Your task to perform on an android device: Go to eBay Image 0: 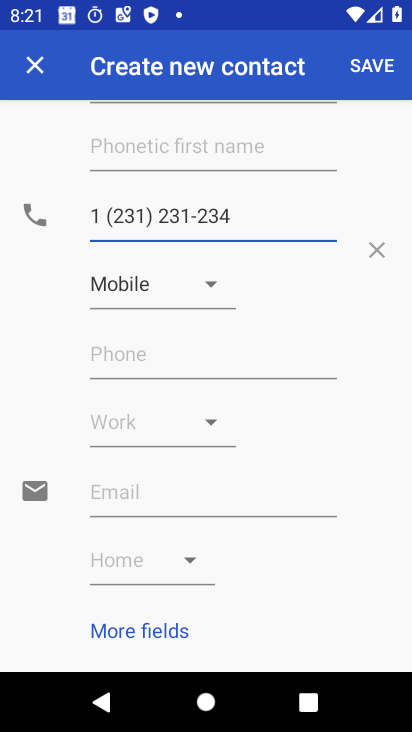
Step 0: press home button
Your task to perform on an android device: Go to eBay Image 1: 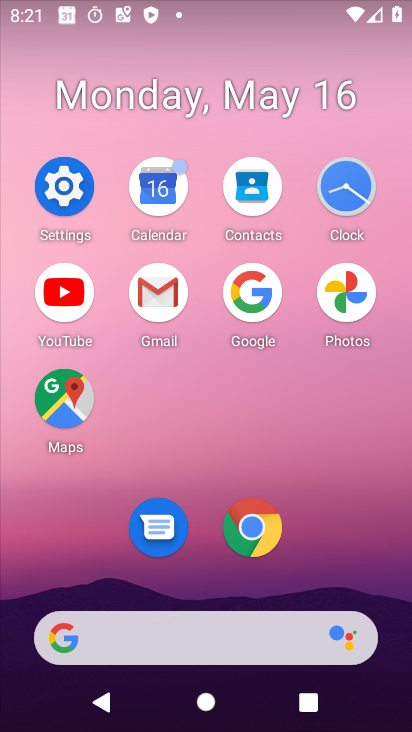
Step 1: click (264, 518)
Your task to perform on an android device: Go to eBay Image 2: 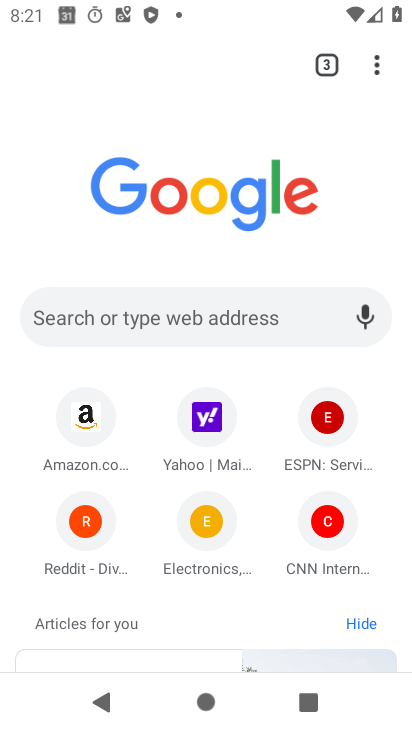
Step 2: click (207, 513)
Your task to perform on an android device: Go to eBay Image 3: 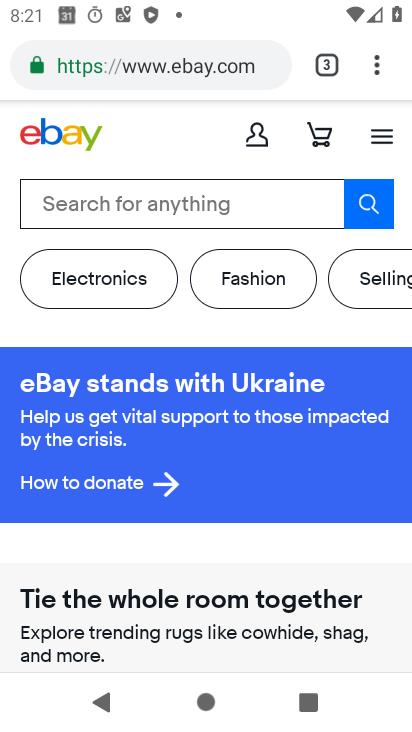
Step 3: task complete